Your task to perform on an android device: turn off picture-in-picture Image 0: 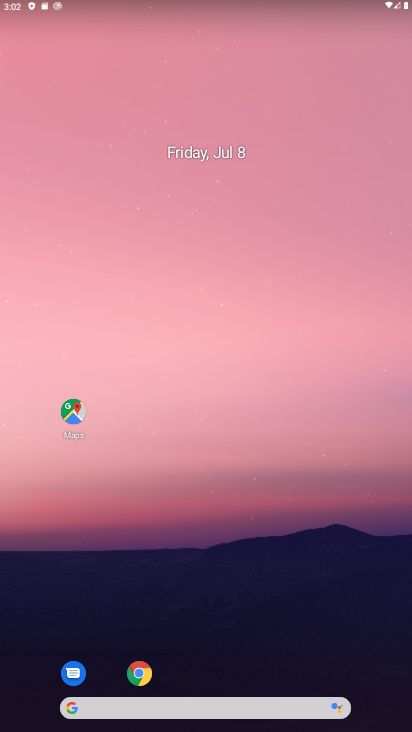
Step 0: click (147, 675)
Your task to perform on an android device: turn off picture-in-picture Image 1: 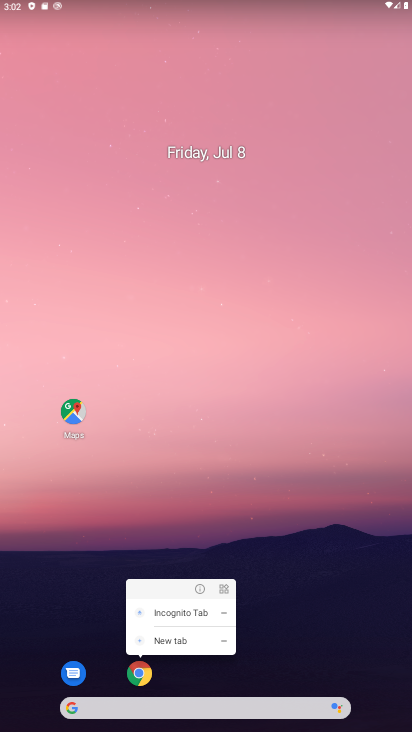
Step 1: click (202, 591)
Your task to perform on an android device: turn off picture-in-picture Image 2: 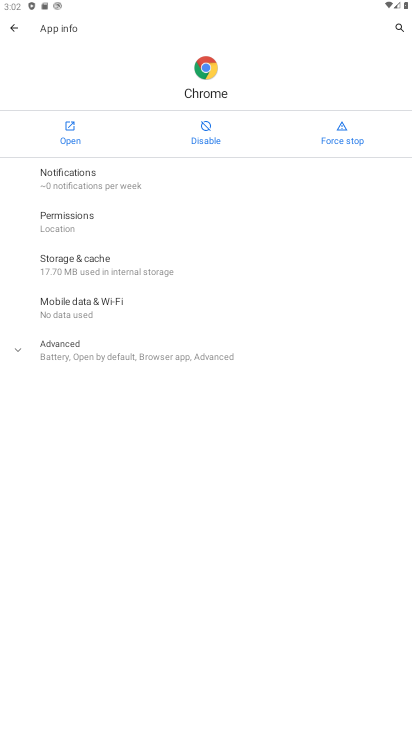
Step 2: click (87, 353)
Your task to perform on an android device: turn off picture-in-picture Image 3: 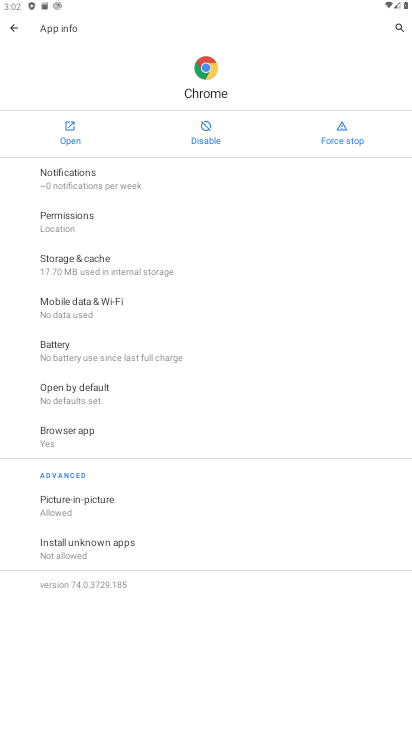
Step 3: click (125, 499)
Your task to perform on an android device: turn off picture-in-picture Image 4: 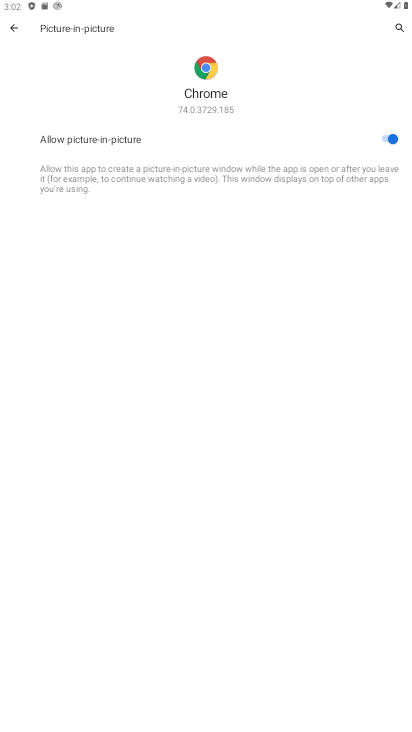
Step 4: click (386, 143)
Your task to perform on an android device: turn off picture-in-picture Image 5: 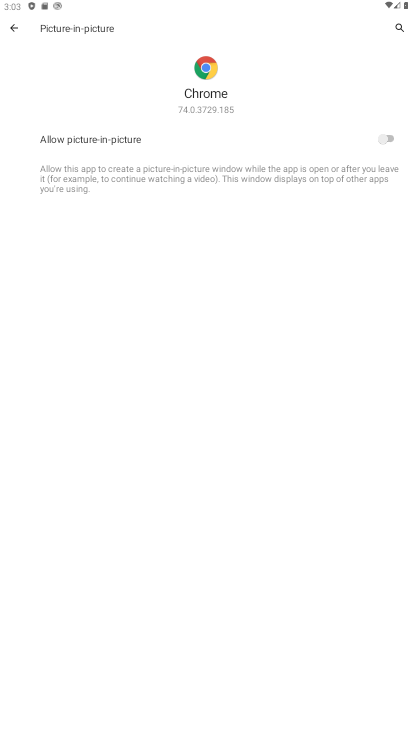
Step 5: task complete